Your task to perform on an android device: Open the web browser Image 0: 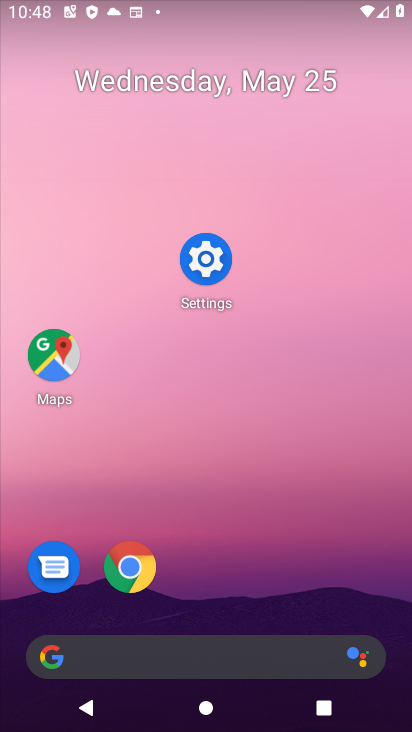
Step 0: click (147, 564)
Your task to perform on an android device: Open the web browser Image 1: 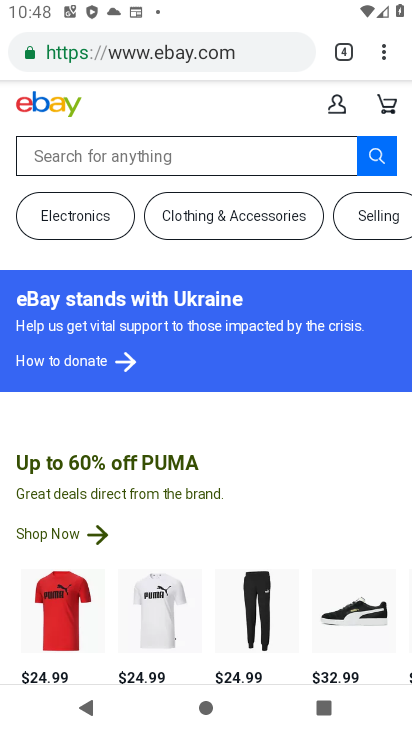
Step 1: task complete